Your task to perform on an android device: change your default location settings in chrome Image 0: 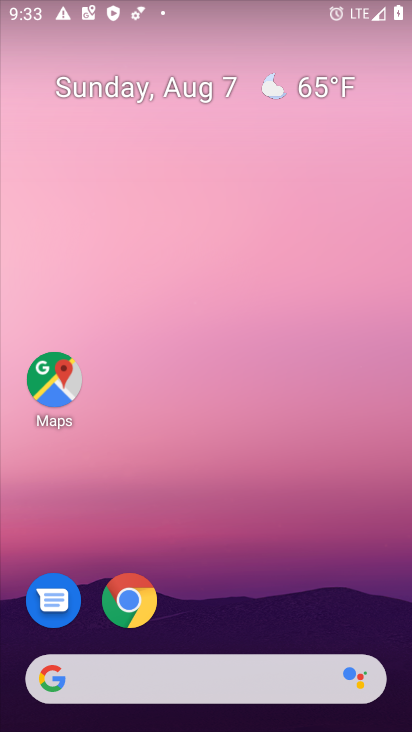
Step 0: click (137, 605)
Your task to perform on an android device: change your default location settings in chrome Image 1: 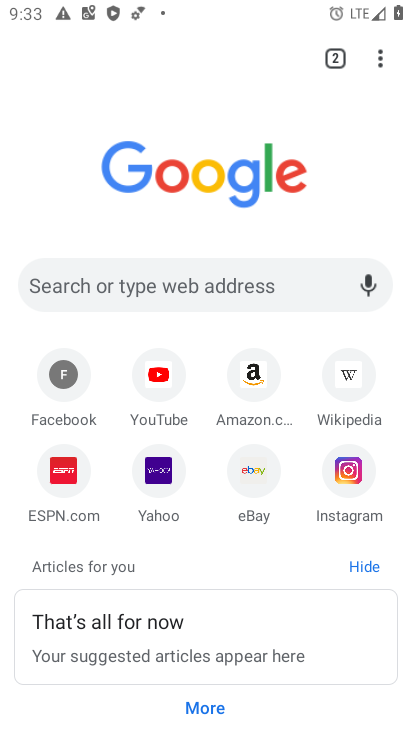
Step 1: click (378, 65)
Your task to perform on an android device: change your default location settings in chrome Image 2: 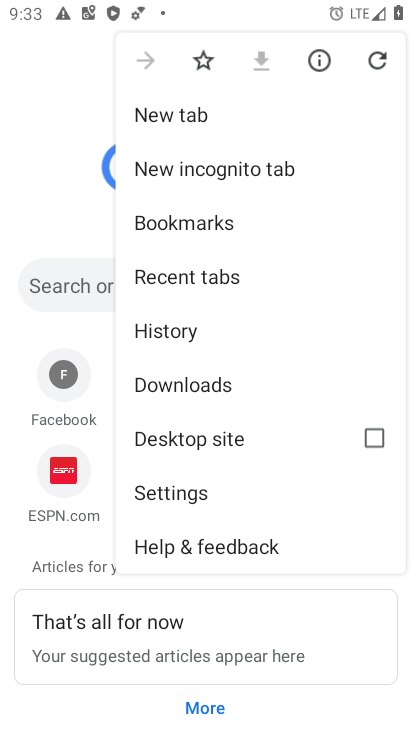
Step 2: click (173, 501)
Your task to perform on an android device: change your default location settings in chrome Image 3: 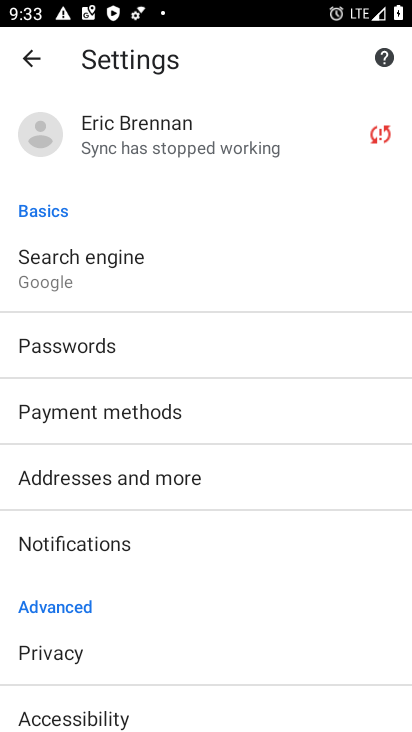
Step 3: drag from (157, 514) to (198, 372)
Your task to perform on an android device: change your default location settings in chrome Image 4: 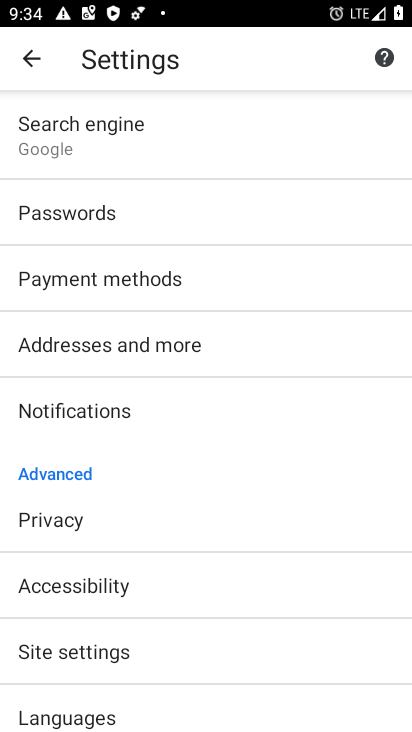
Step 4: click (94, 653)
Your task to perform on an android device: change your default location settings in chrome Image 5: 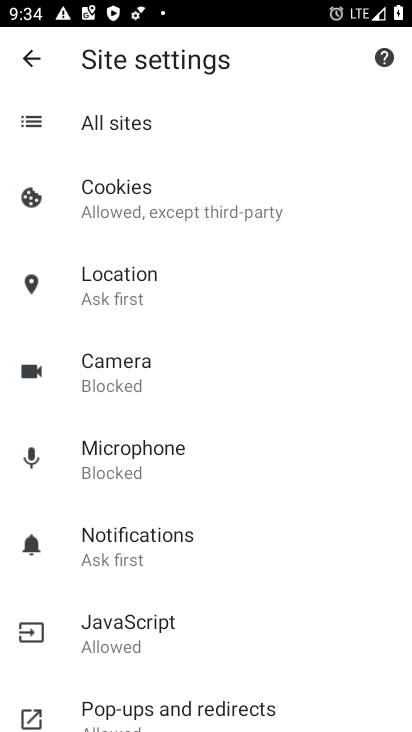
Step 5: click (132, 284)
Your task to perform on an android device: change your default location settings in chrome Image 6: 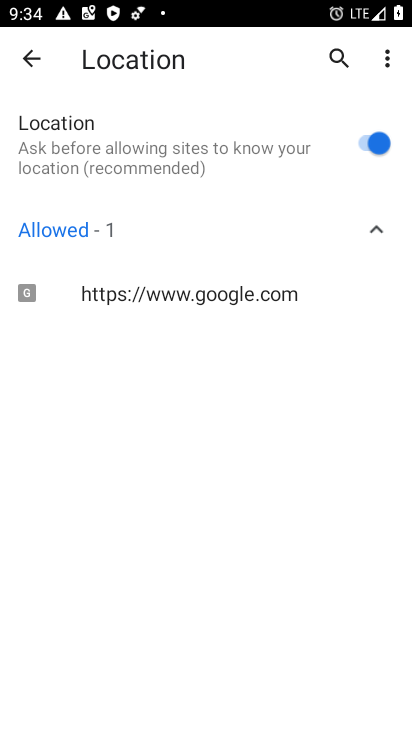
Step 6: click (358, 146)
Your task to perform on an android device: change your default location settings in chrome Image 7: 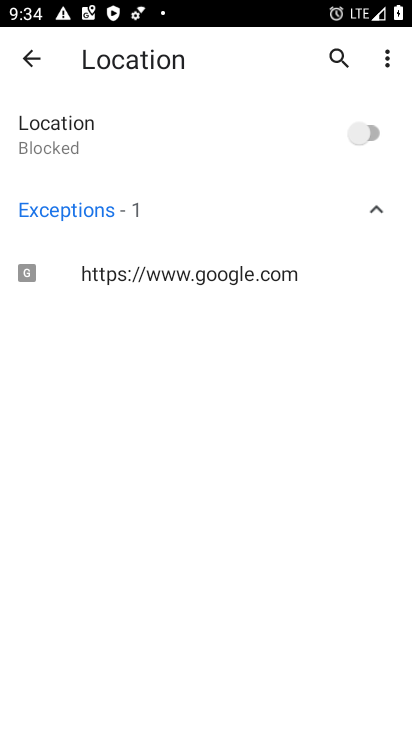
Step 7: task complete